Your task to perform on an android device: Check the weather Image 0: 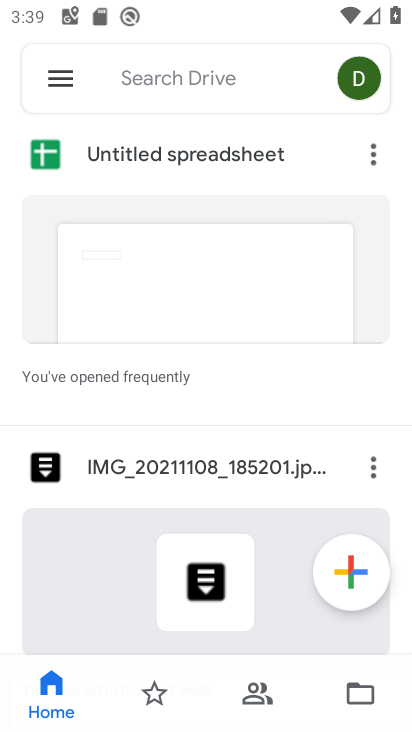
Step 0: drag from (120, 566) to (161, 300)
Your task to perform on an android device: Check the weather Image 1: 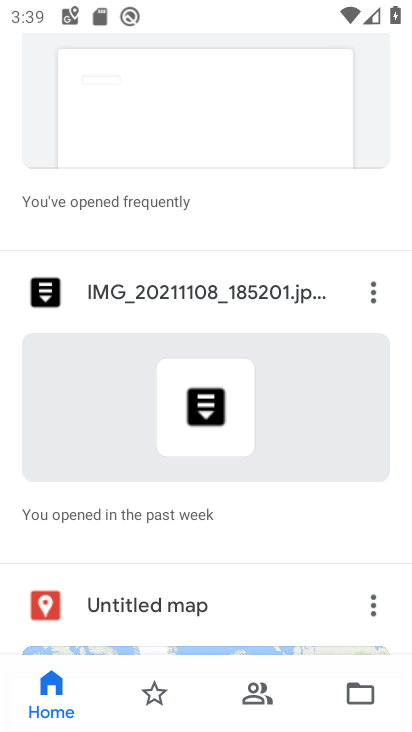
Step 1: drag from (184, 571) to (237, 213)
Your task to perform on an android device: Check the weather Image 2: 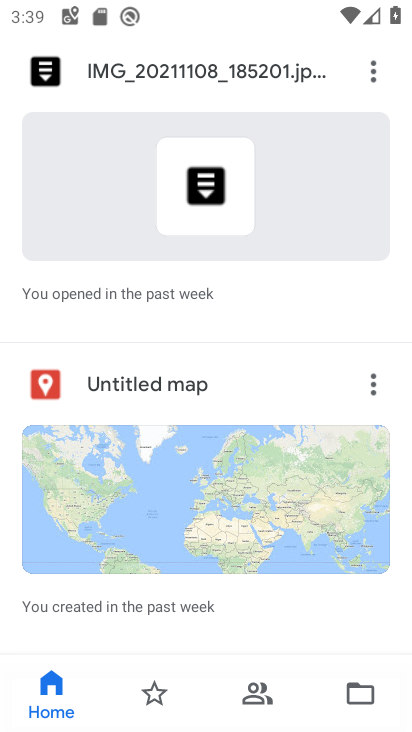
Step 2: press home button
Your task to perform on an android device: Check the weather Image 3: 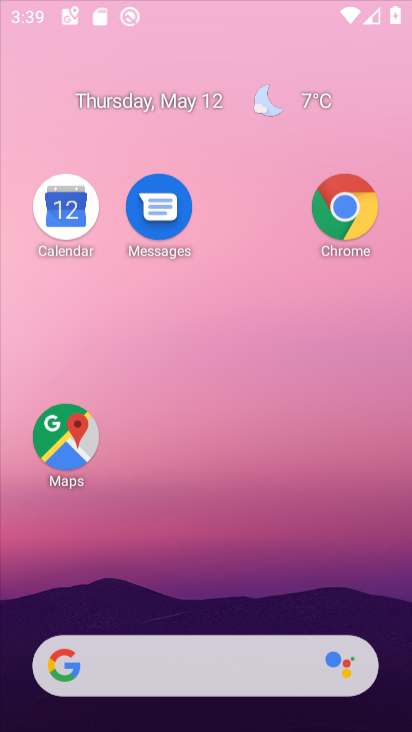
Step 3: drag from (183, 598) to (208, 106)
Your task to perform on an android device: Check the weather Image 4: 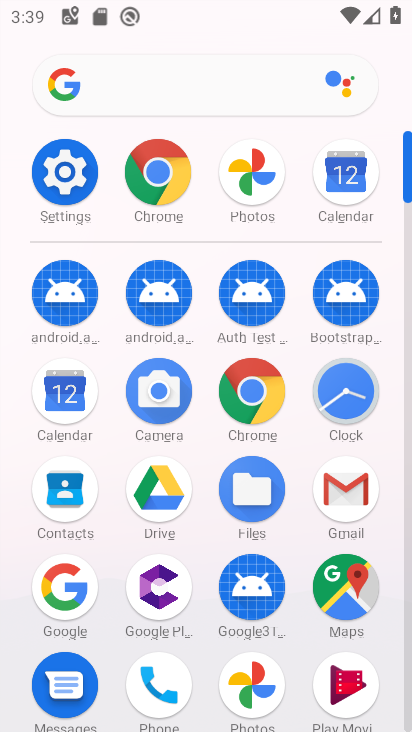
Step 4: click (186, 79)
Your task to perform on an android device: Check the weather Image 5: 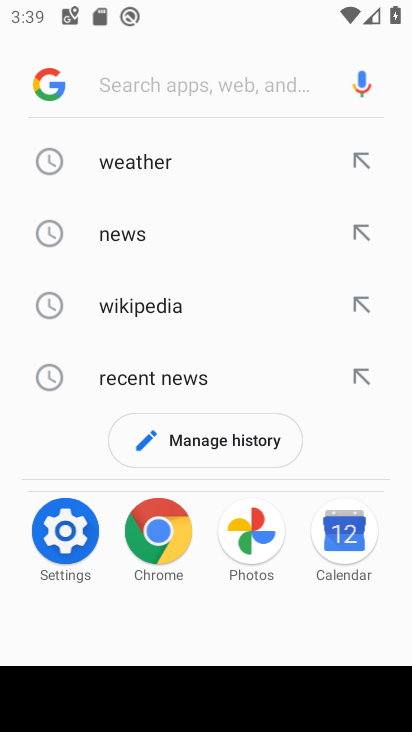
Step 5: click (131, 159)
Your task to perform on an android device: Check the weather Image 6: 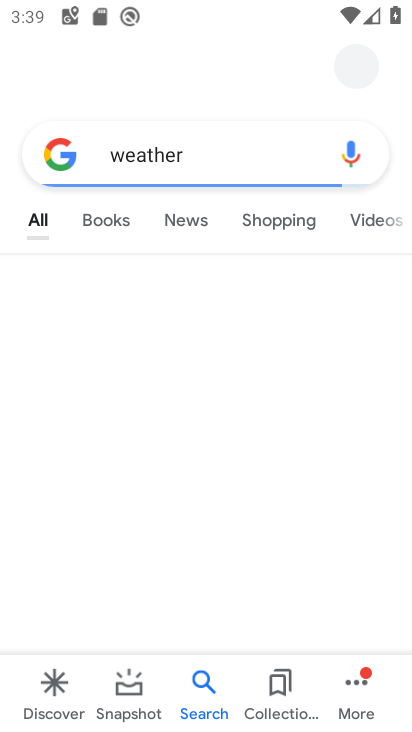
Step 6: task complete